Your task to perform on an android device: Open calendar and show me the second week of next month Image 0: 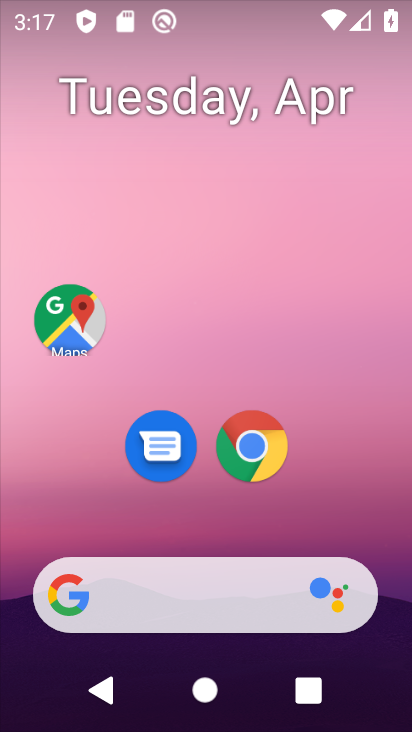
Step 0: drag from (321, 525) to (93, 148)
Your task to perform on an android device: Open calendar and show me the second week of next month Image 1: 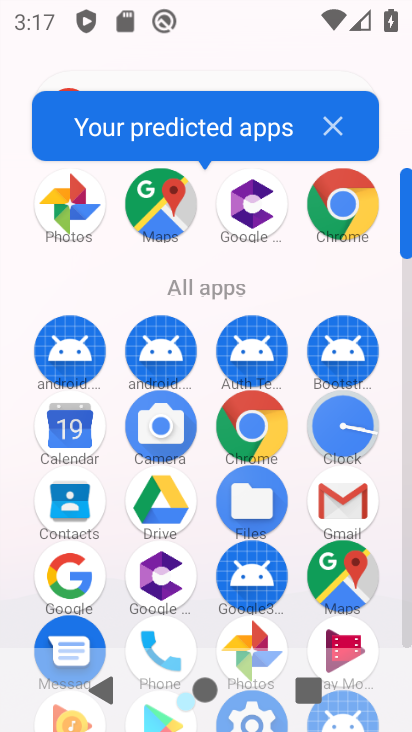
Step 1: click (77, 426)
Your task to perform on an android device: Open calendar and show me the second week of next month Image 2: 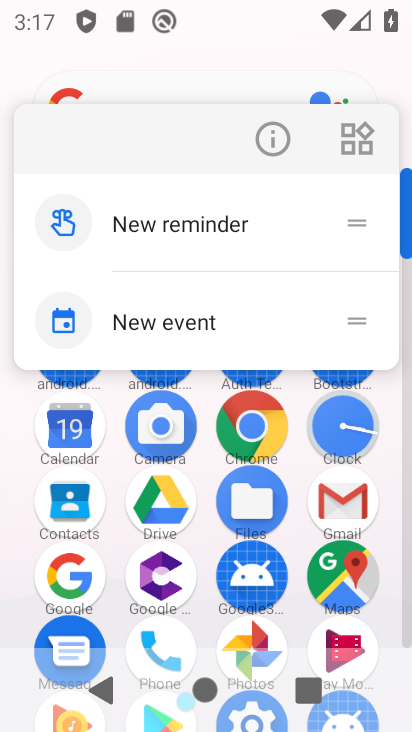
Step 2: click (61, 413)
Your task to perform on an android device: Open calendar and show me the second week of next month Image 3: 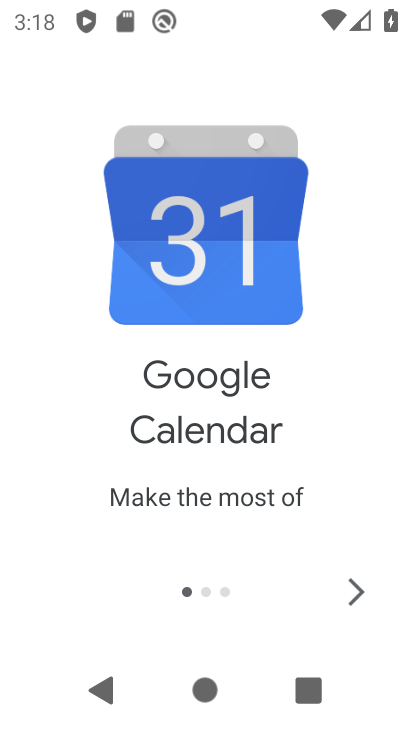
Step 3: click (354, 600)
Your task to perform on an android device: Open calendar and show me the second week of next month Image 4: 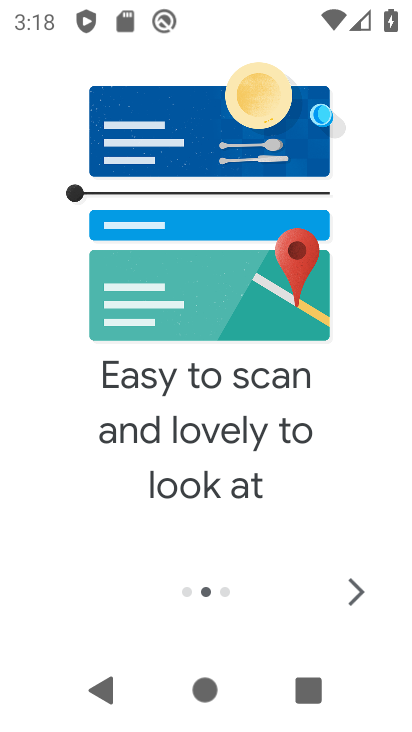
Step 4: click (362, 593)
Your task to perform on an android device: Open calendar and show me the second week of next month Image 5: 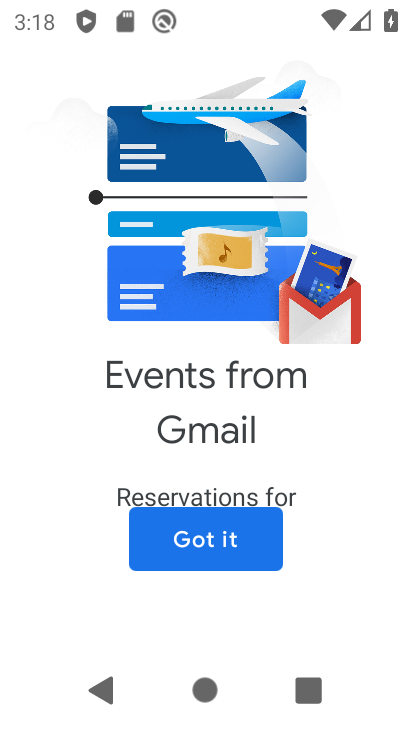
Step 5: click (241, 544)
Your task to perform on an android device: Open calendar and show me the second week of next month Image 6: 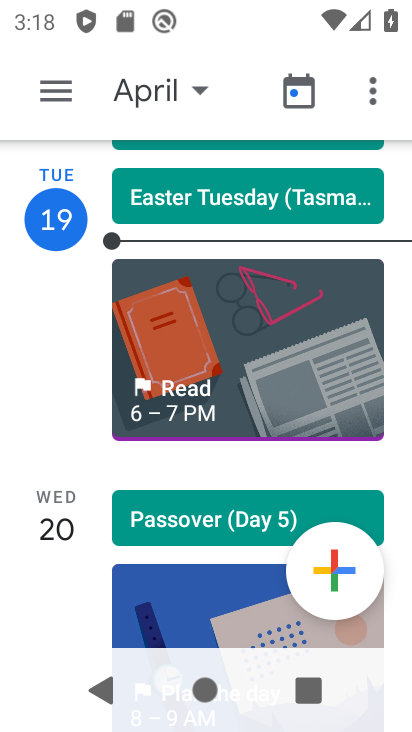
Step 6: click (202, 88)
Your task to perform on an android device: Open calendar and show me the second week of next month Image 7: 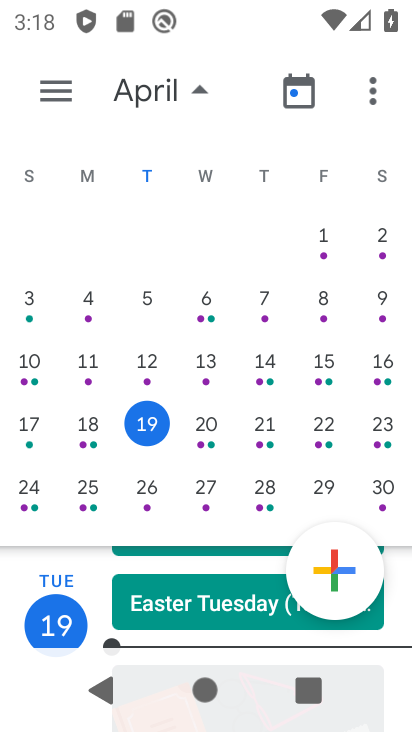
Step 7: drag from (382, 261) to (17, 225)
Your task to perform on an android device: Open calendar and show me the second week of next month Image 8: 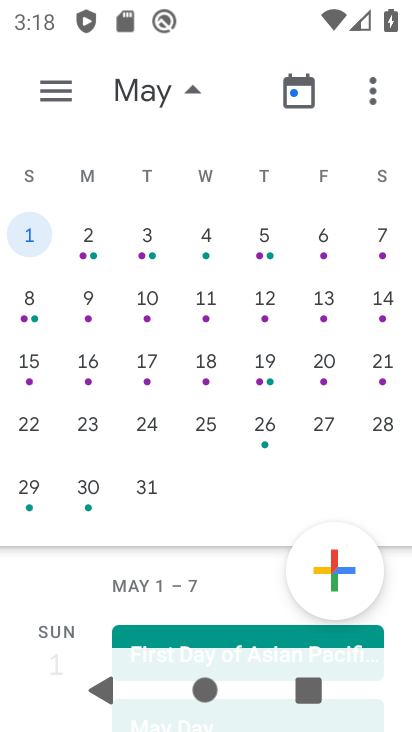
Step 8: click (267, 303)
Your task to perform on an android device: Open calendar and show me the second week of next month Image 9: 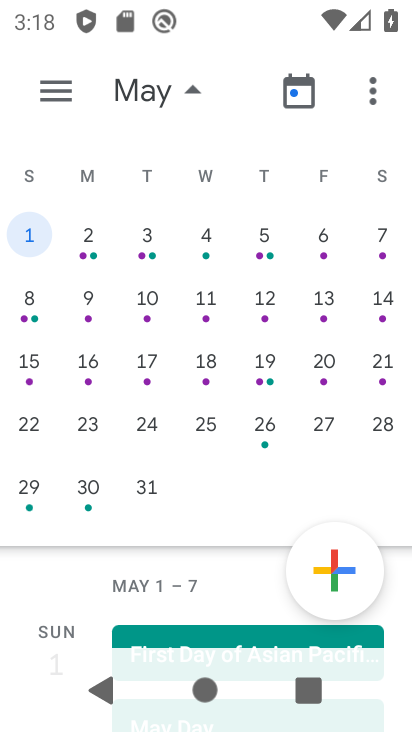
Step 9: click (265, 292)
Your task to perform on an android device: Open calendar and show me the second week of next month Image 10: 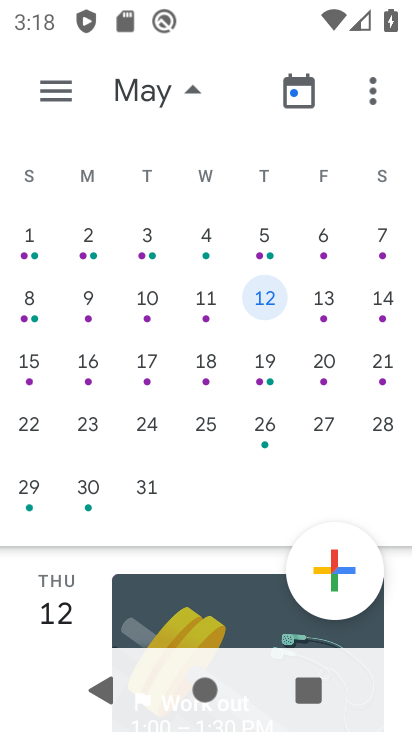
Step 10: task complete